Your task to perform on an android device: open app "Chime – Mobile Banking" (install if not already installed) and go to login screen Image 0: 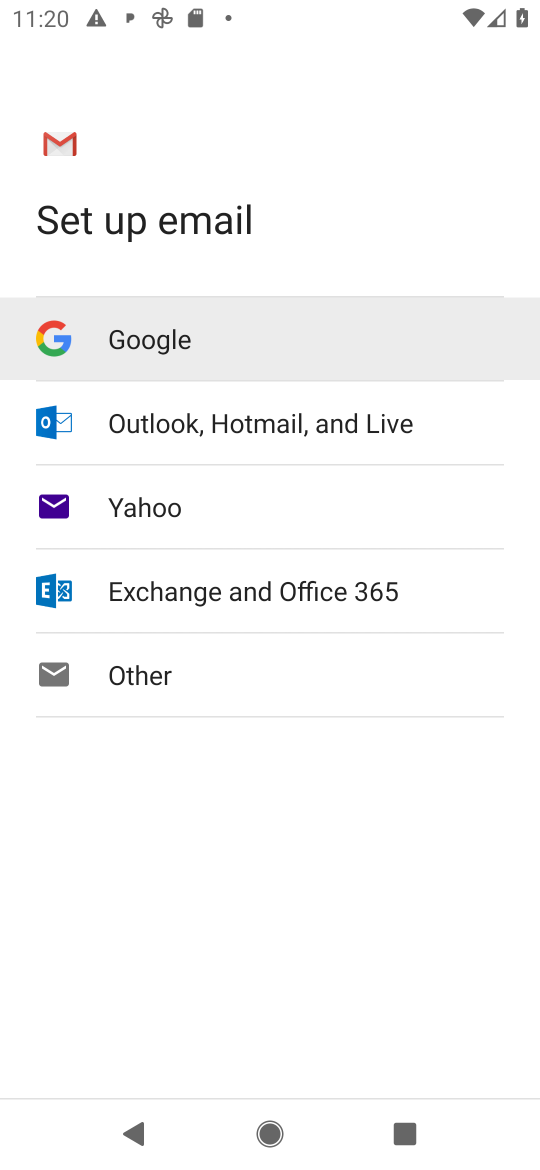
Step 0: press home button
Your task to perform on an android device: open app "Chime – Mobile Banking" (install if not already installed) and go to login screen Image 1: 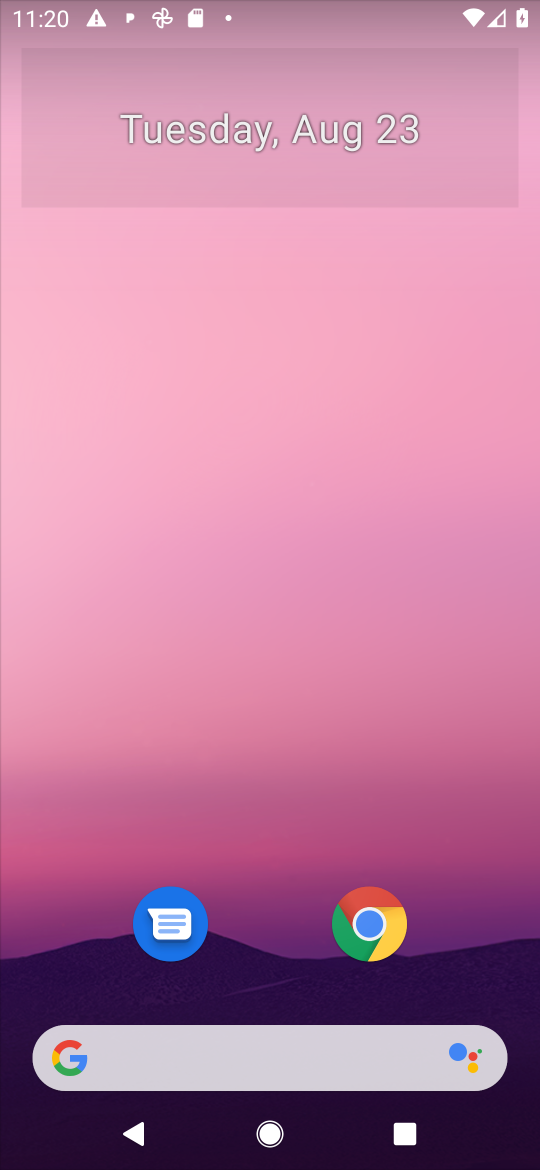
Step 1: drag from (467, 907) to (475, 194)
Your task to perform on an android device: open app "Chime – Mobile Banking" (install if not already installed) and go to login screen Image 2: 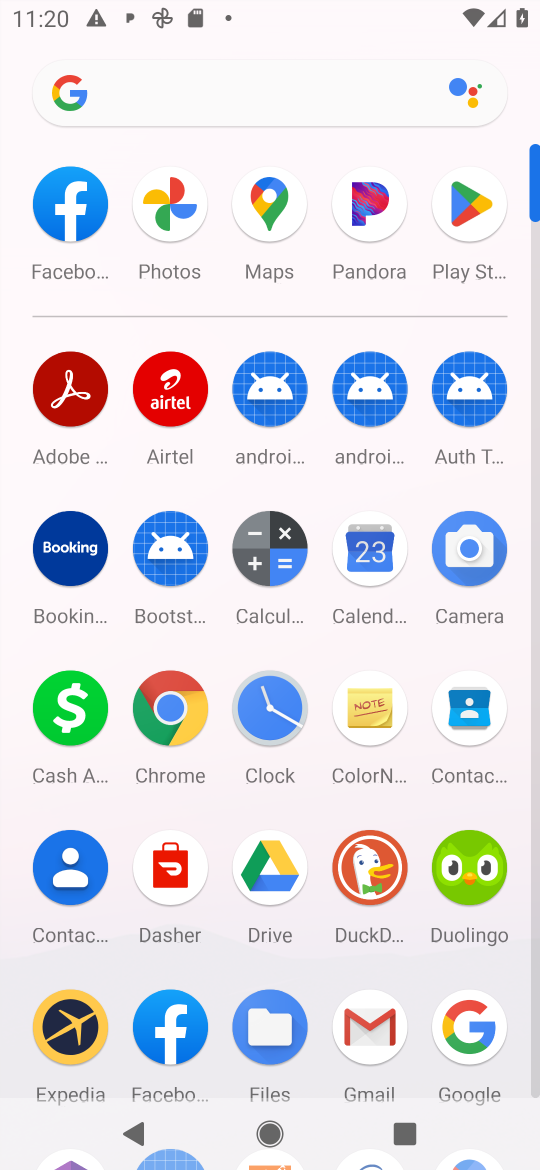
Step 2: click (474, 208)
Your task to perform on an android device: open app "Chime – Mobile Banking" (install if not already installed) and go to login screen Image 3: 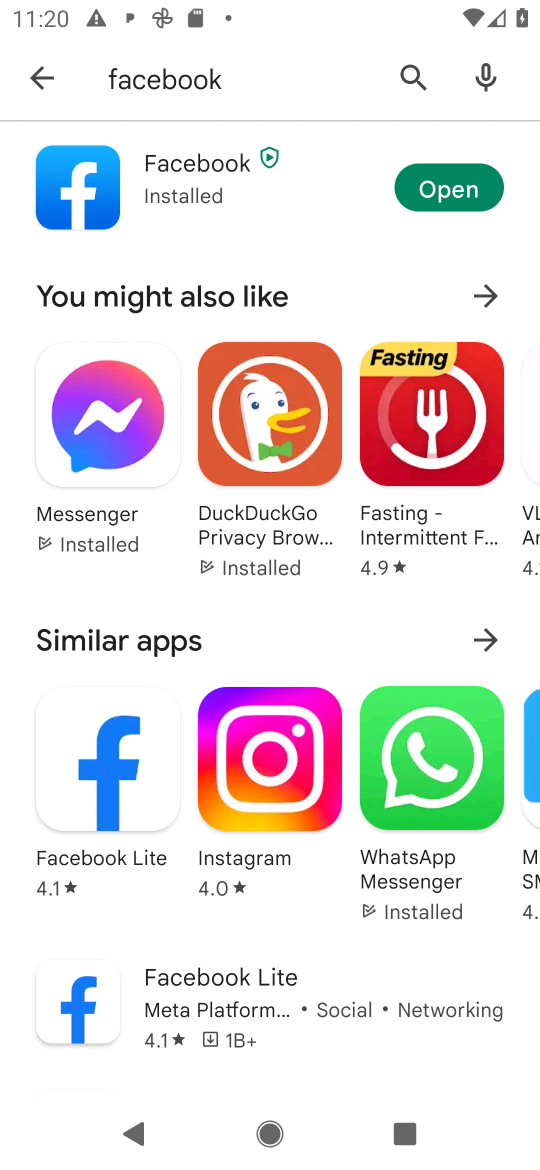
Step 3: press back button
Your task to perform on an android device: open app "Chime – Mobile Banking" (install if not already installed) and go to login screen Image 4: 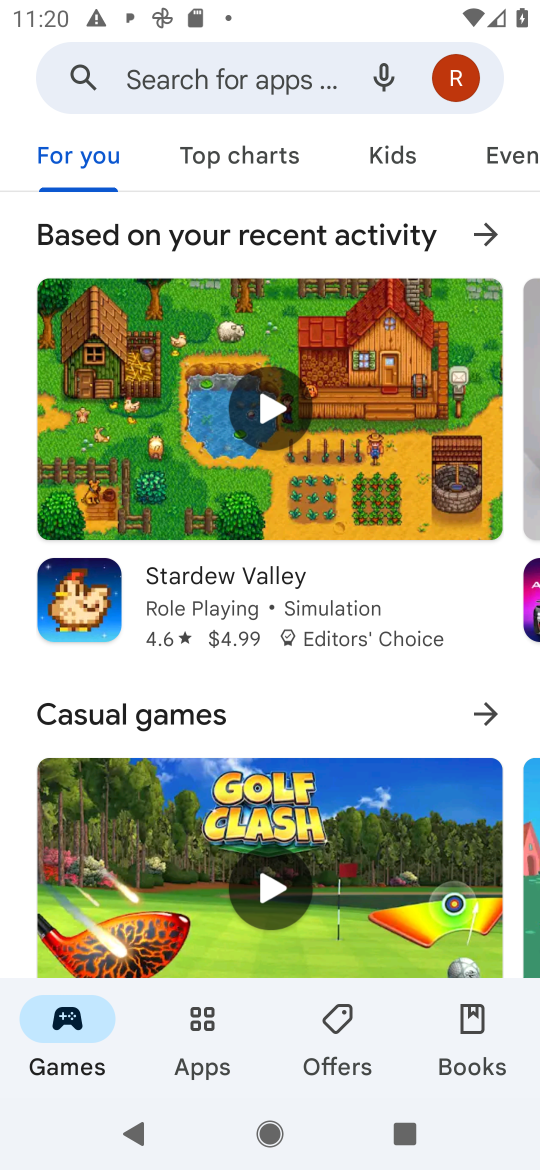
Step 4: click (267, 71)
Your task to perform on an android device: open app "Chime – Mobile Banking" (install if not already installed) and go to login screen Image 5: 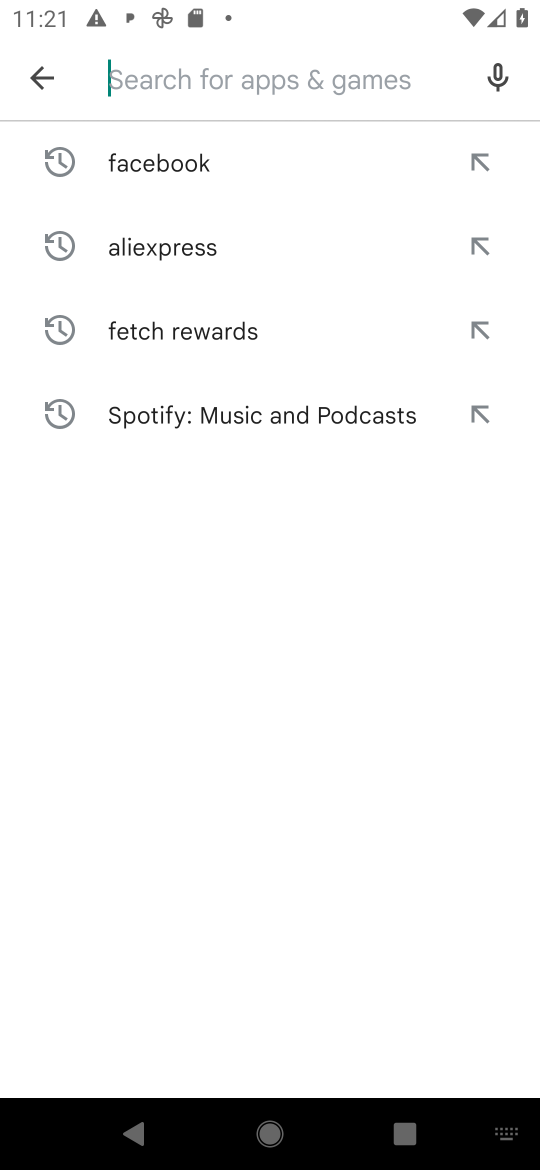
Step 5: type "Chime – Mobile Banking"
Your task to perform on an android device: open app "Chime – Mobile Banking" (install if not already installed) and go to login screen Image 6: 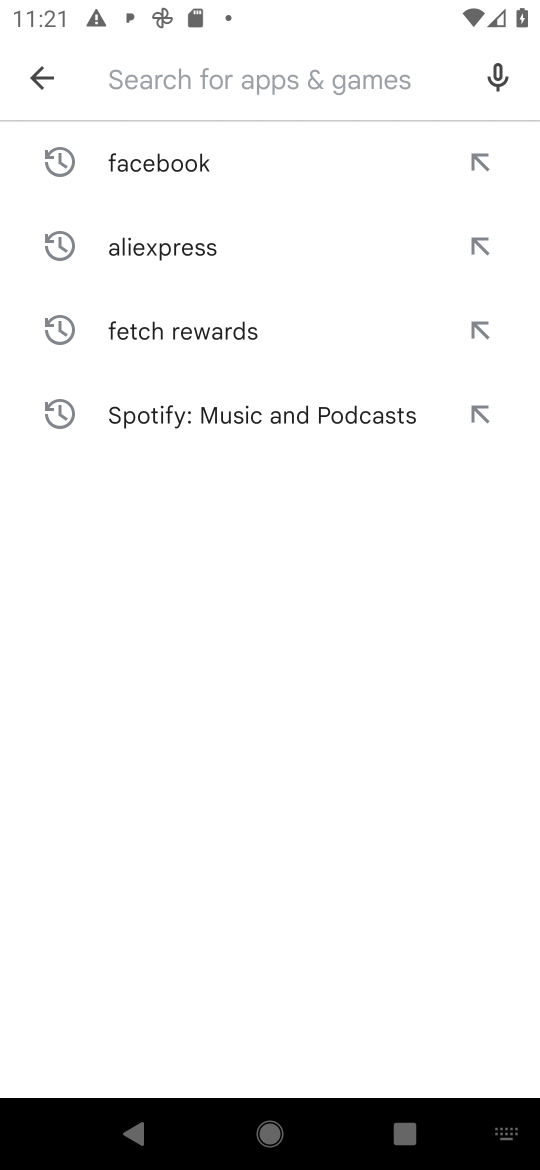
Step 6: press enter
Your task to perform on an android device: open app "Chime – Mobile Banking" (install if not already installed) and go to login screen Image 7: 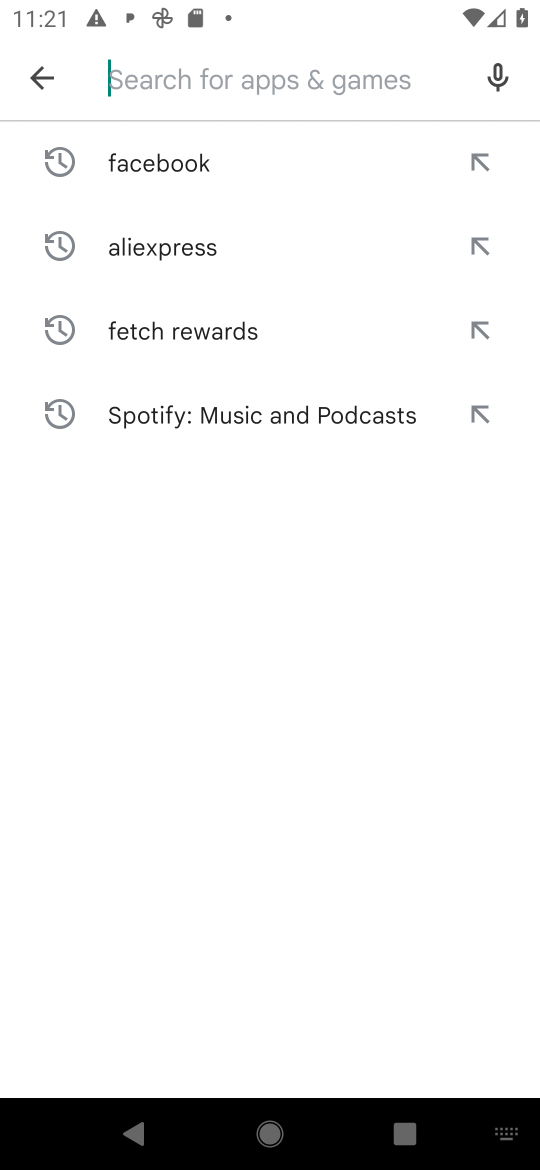
Step 7: type "Chime – Mobile Banking"
Your task to perform on an android device: open app "Chime – Mobile Banking" (install if not already installed) and go to login screen Image 8: 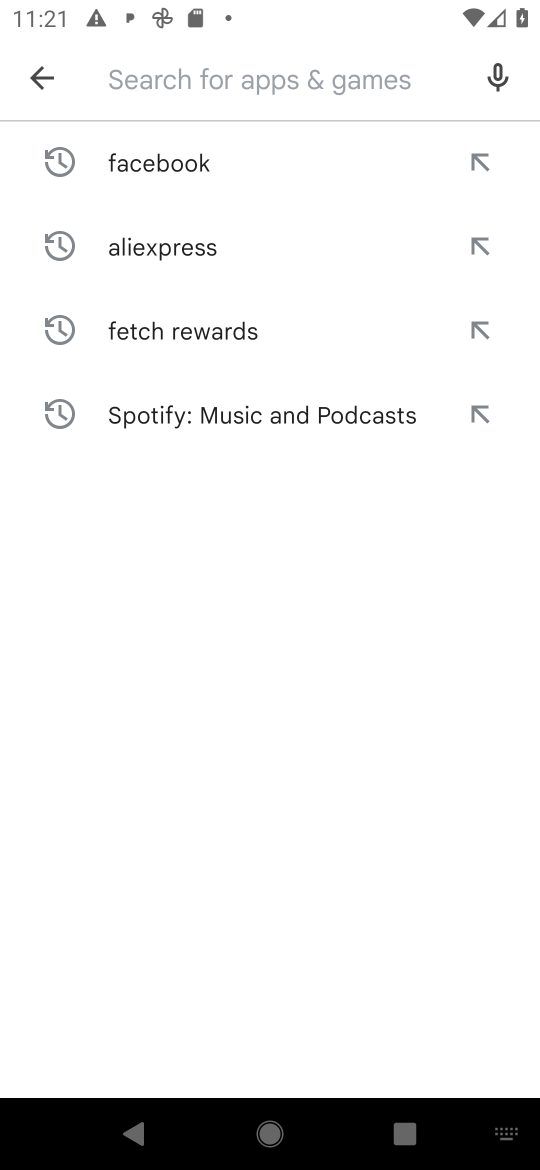
Step 8: task complete